Your task to perform on an android device: open a new tab in the chrome app Image 0: 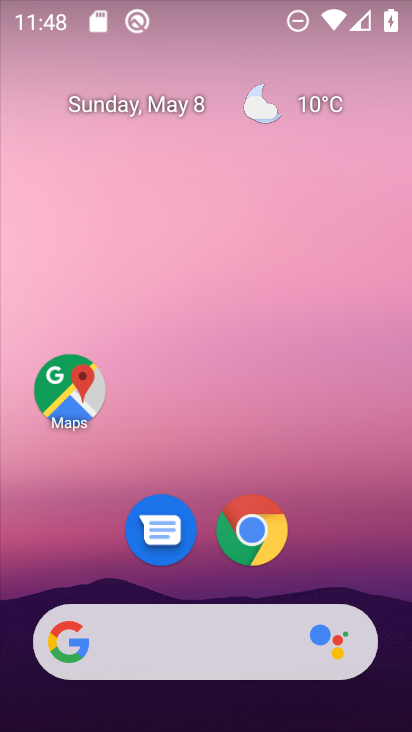
Step 0: click (258, 530)
Your task to perform on an android device: open a new tab in the chrome app Image 1: 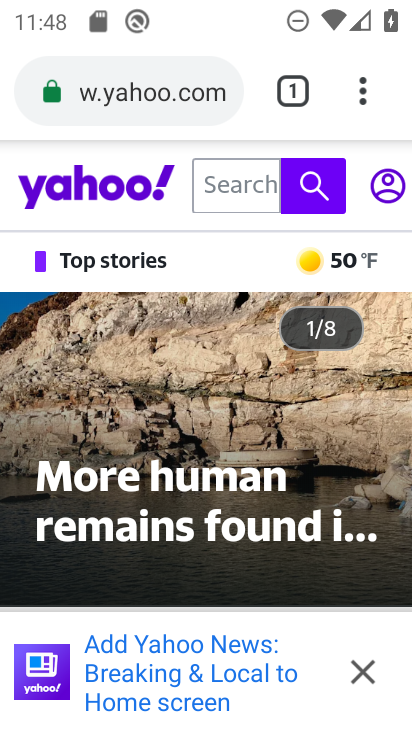
Step 1: click (377, 79)
Your task to perform on an android device: open a new tab in the chrome app Image 2: 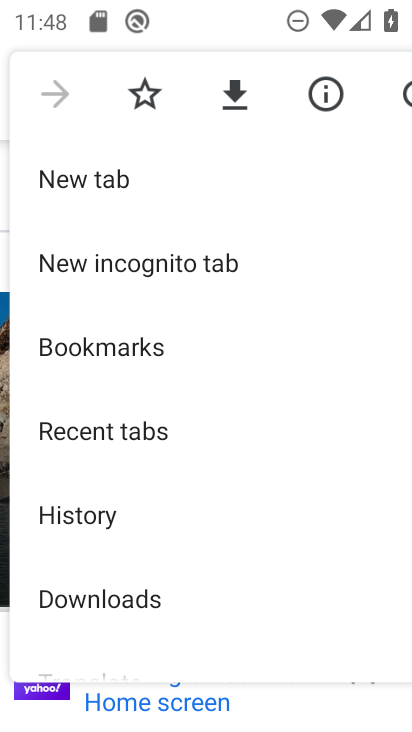
Step 2: click (130, 199)
Your task to perform on an android device: open a new tab in the chrome app Image 3: 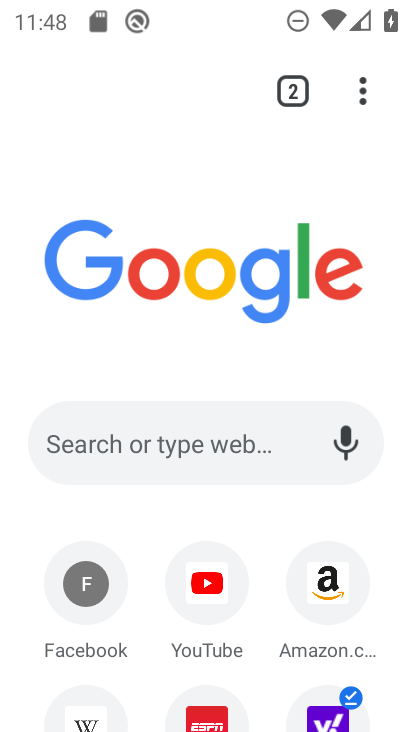
Step 3: task complete